Your task to perform on an android device: toggle sleep mode Image 0: 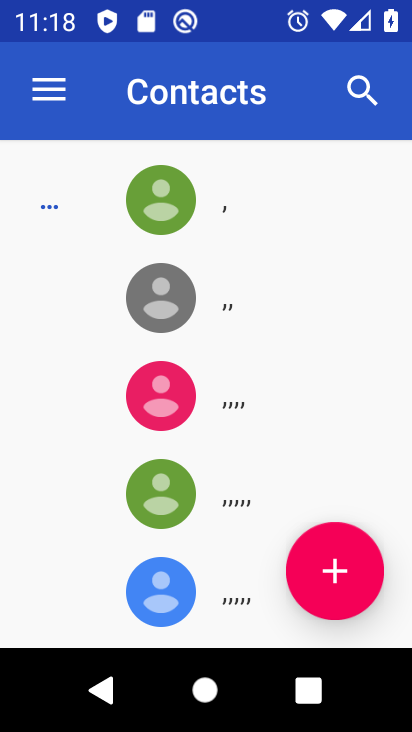
Step 0: press home button
Your task to perform on an android device: toggle sleep mode Image 1: 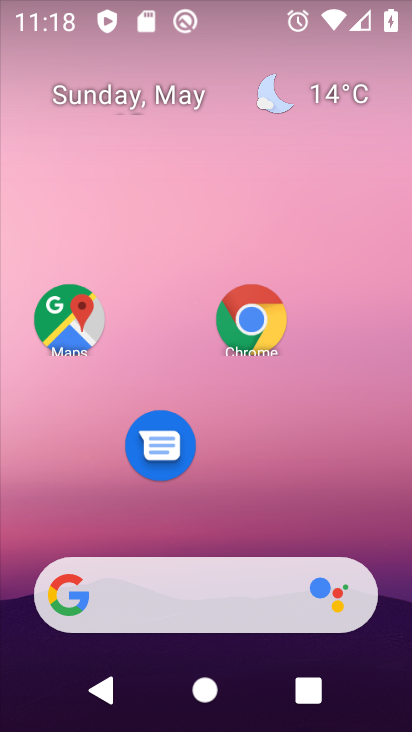
Step 1: drag from (153, 583) to (285, 118)
Your task to perform on an android device: toggle sleep mode Image 2: 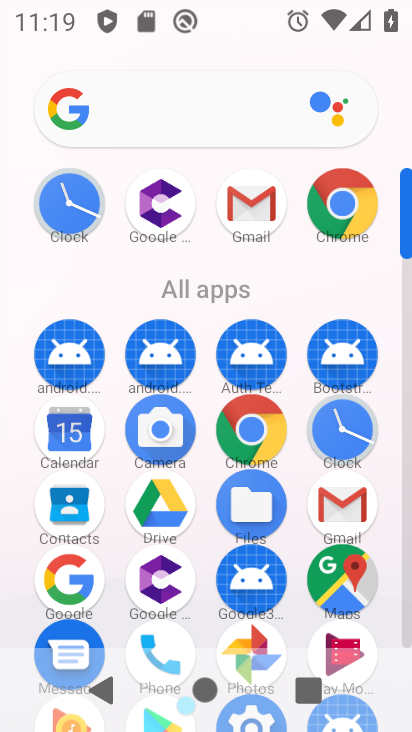
Step 2: drag from (205, 571) to (305, 330)
Your task to perform on an android device: toggle sleep mode Image 3: 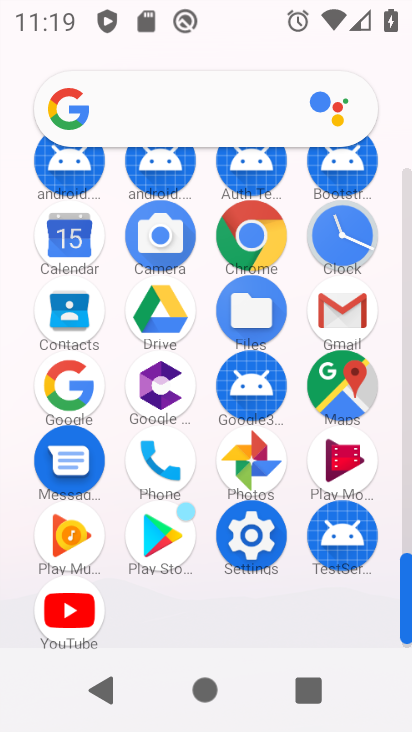
Step 3: click (262, 544)
Your task to perform on an android device: toggle sleep mode Image 4: 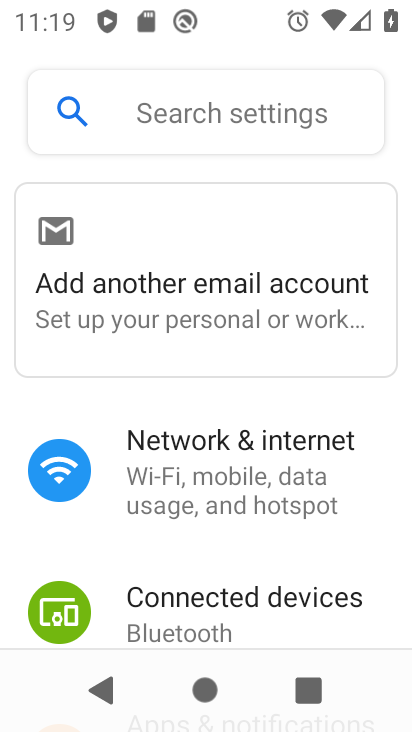
Step 4: drag from (199, 601) to (356, 175)
Your task to perform on an android device: toggle sleep mode Image 5: 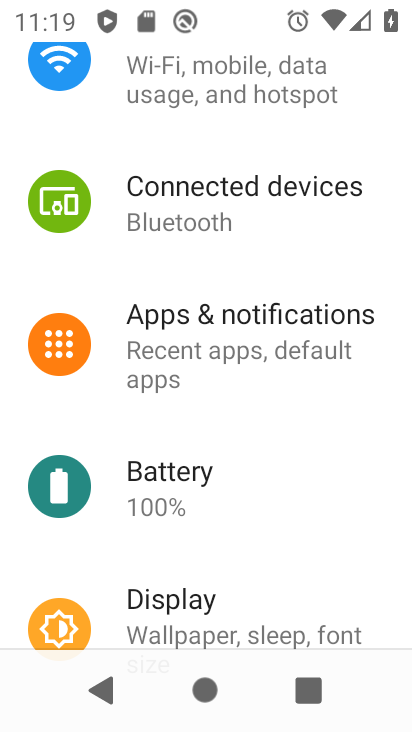
Step 5: drag from (294, 284) to (330, 208)
Your task to perform on an android device: toggle sleep mode Image 6: 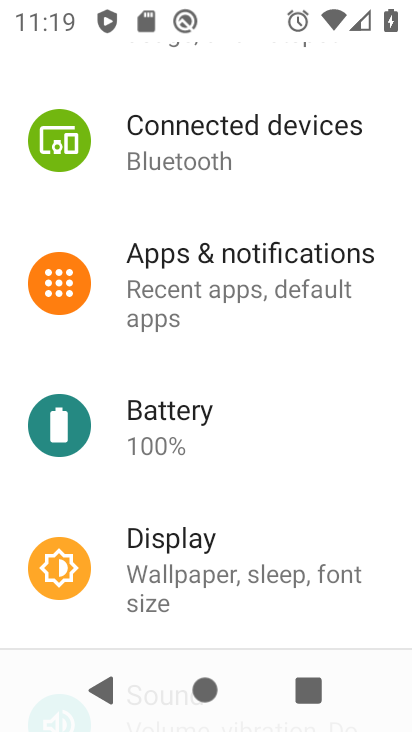
Step 6: click (217, 559)
Your task to perform on an android device: toggle sleep mode Image 7: 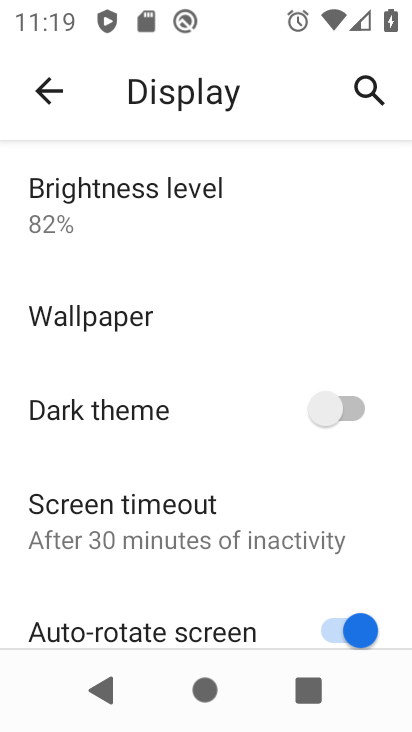
Step 7: task complete